Your task to perform on an android device: Open sound settings Image 0: 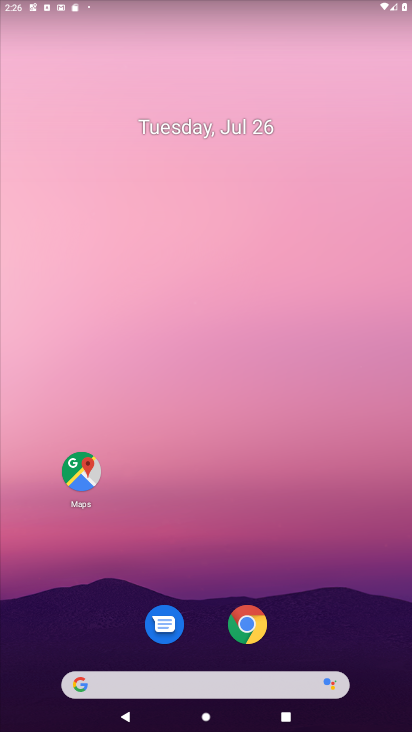
Step 0: drag from (220, 675) to (212, 46)
Your task to perform on an android device: Open sound settings Image 1: 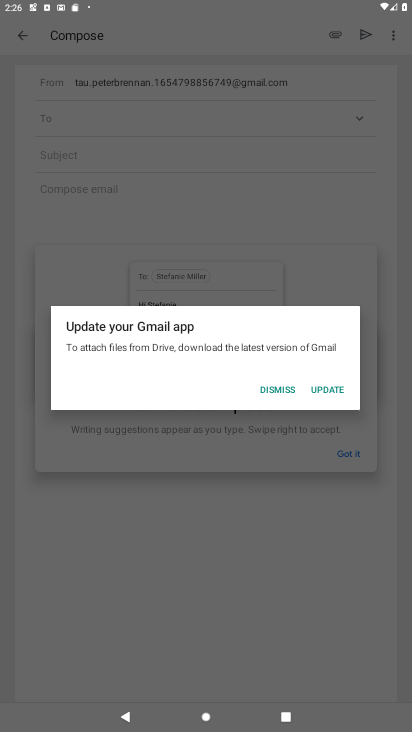
Step 1: click (270, 392)
Your task to perform on an android device: Open sound settings Image 2: 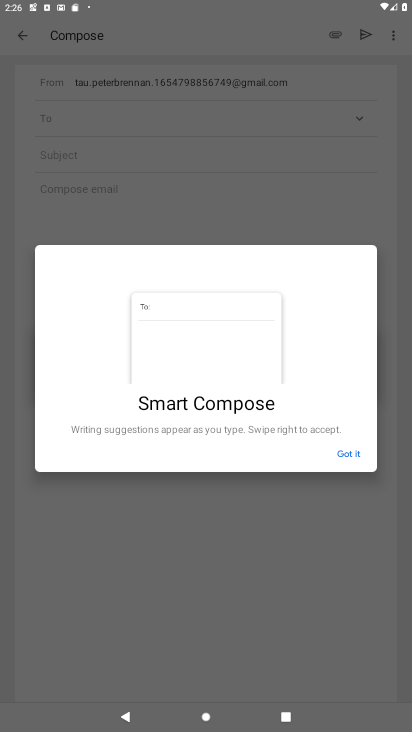
Step 2: click (347, 461)
Your task to perform on an android device: Open sound settings Image 3: 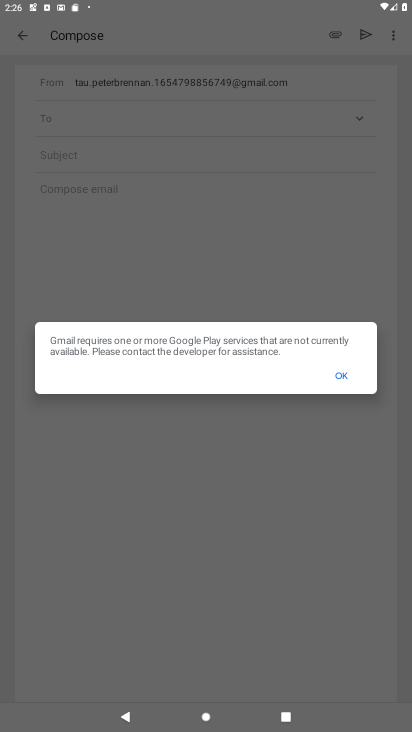
Step 3: click (340, 372)
Your task to perform on an android device: Open sound settings Image 4: 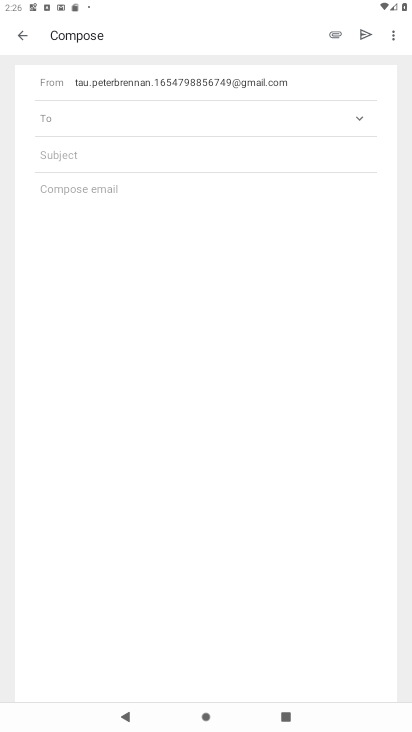
Step 4: press home button
Your task to perform on an android device: Open sound settings Image 5: 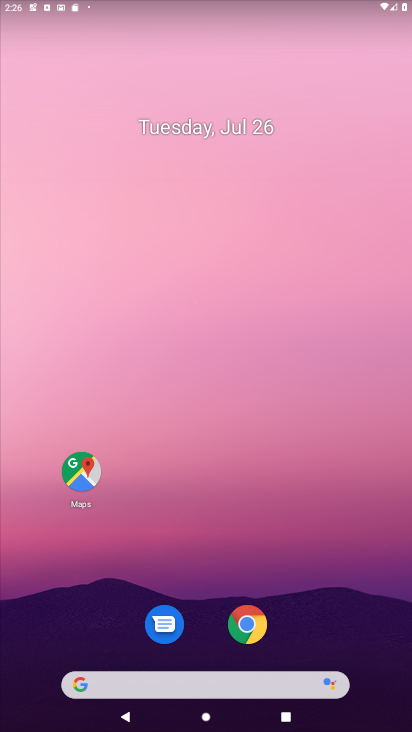
Step 5: drag from (203, 664) to (283, 3)
Your task to perform on an android device: Open sound settings Image 6: 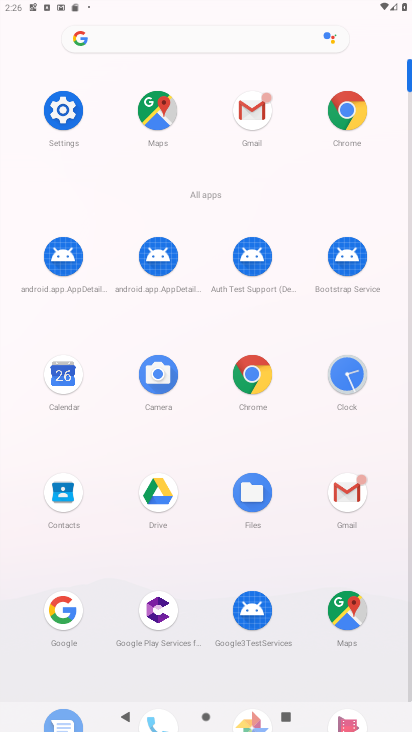
Step 6: click (66, 104)
Your task to perform on an android device: Open sound settings Image 7: 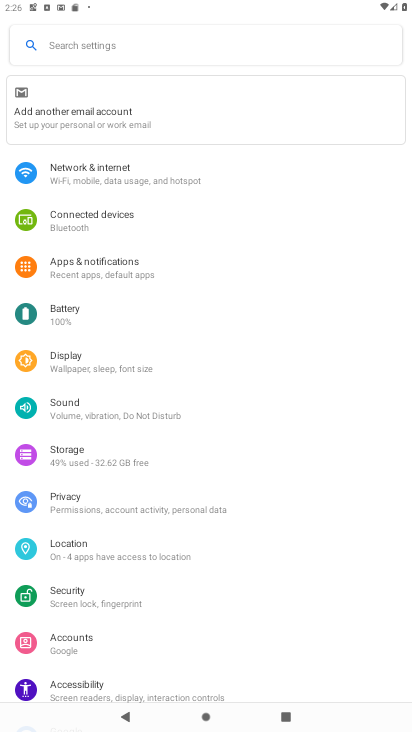
Step 7: click (73, 405)
Your task to perform on an android device: Open sound settings Image 8: 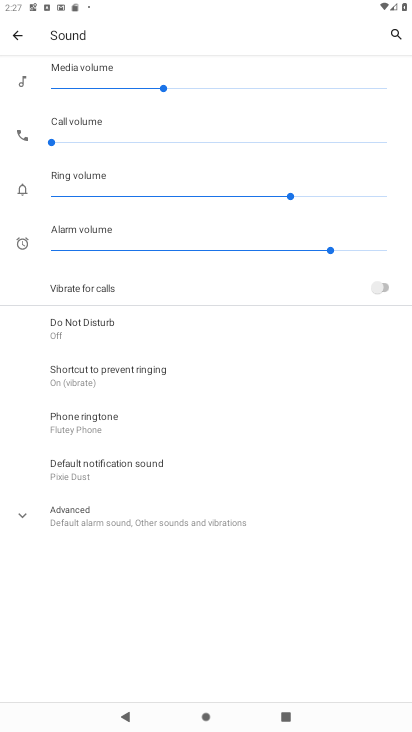
Step 8: click (125, 514)
Your task to perform on an android device: Open sound settings Image 9: 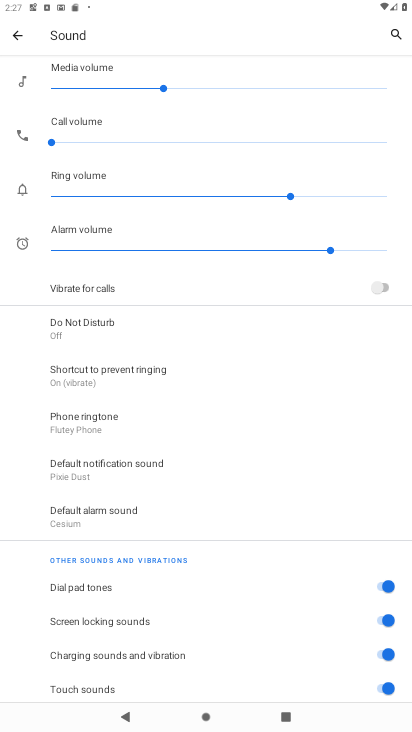
Step 9: task complete